Your task to perform on an android device: Who is the prime minister of Canada? Image 0: 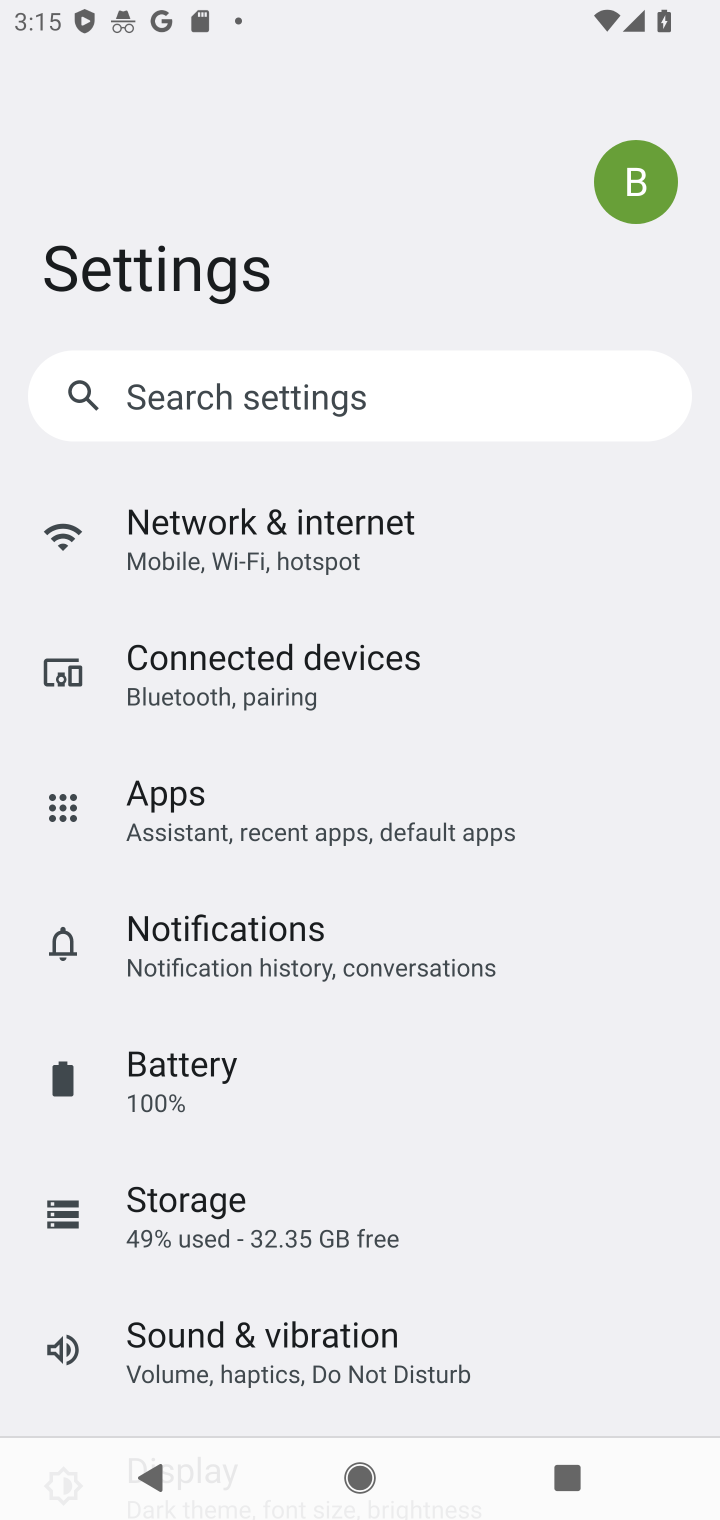
Step 0: press home button
Your task to perform on an android device: Who is the prime minister of Canada? Image 1: 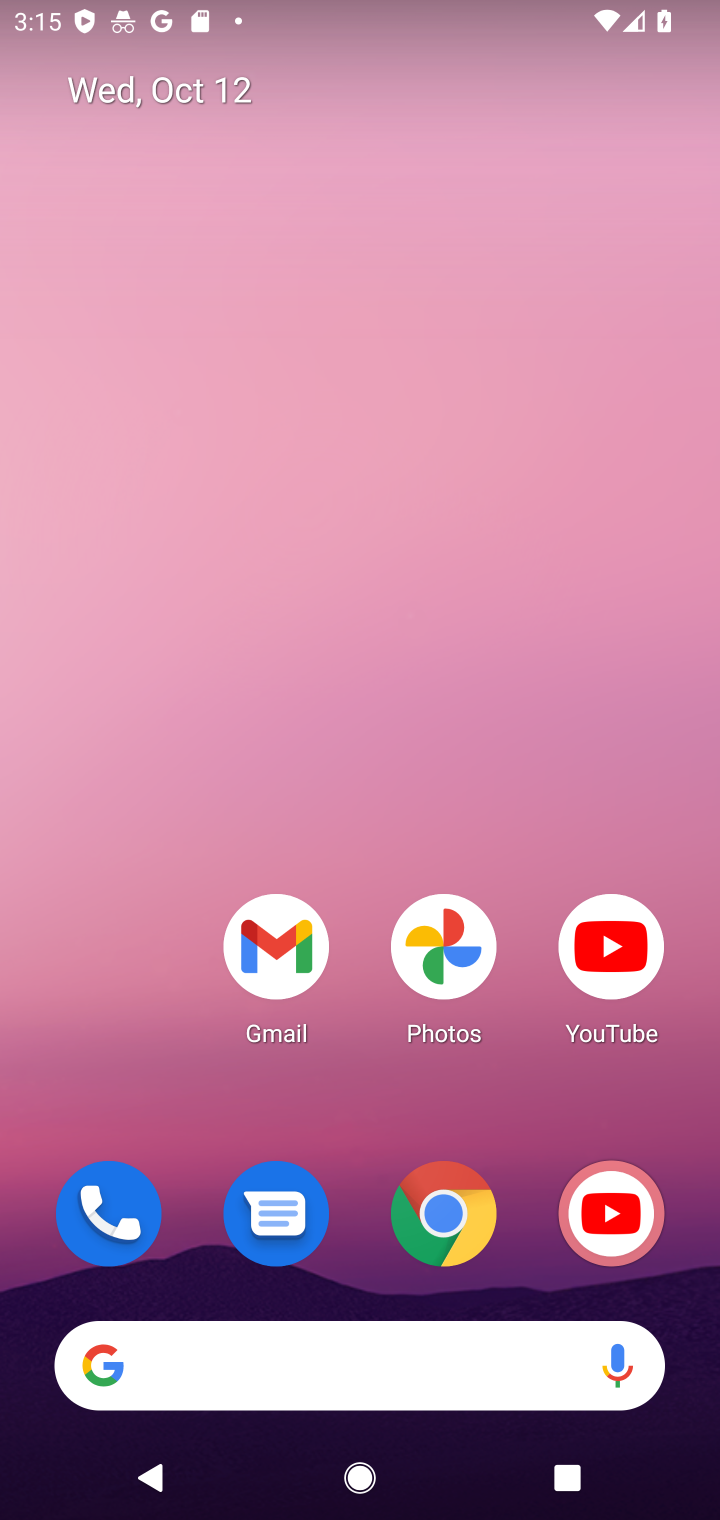
Step 1: click (310, 1380)
Your task to perform on an android device: Who is the prime minister of Canada? Image 2: 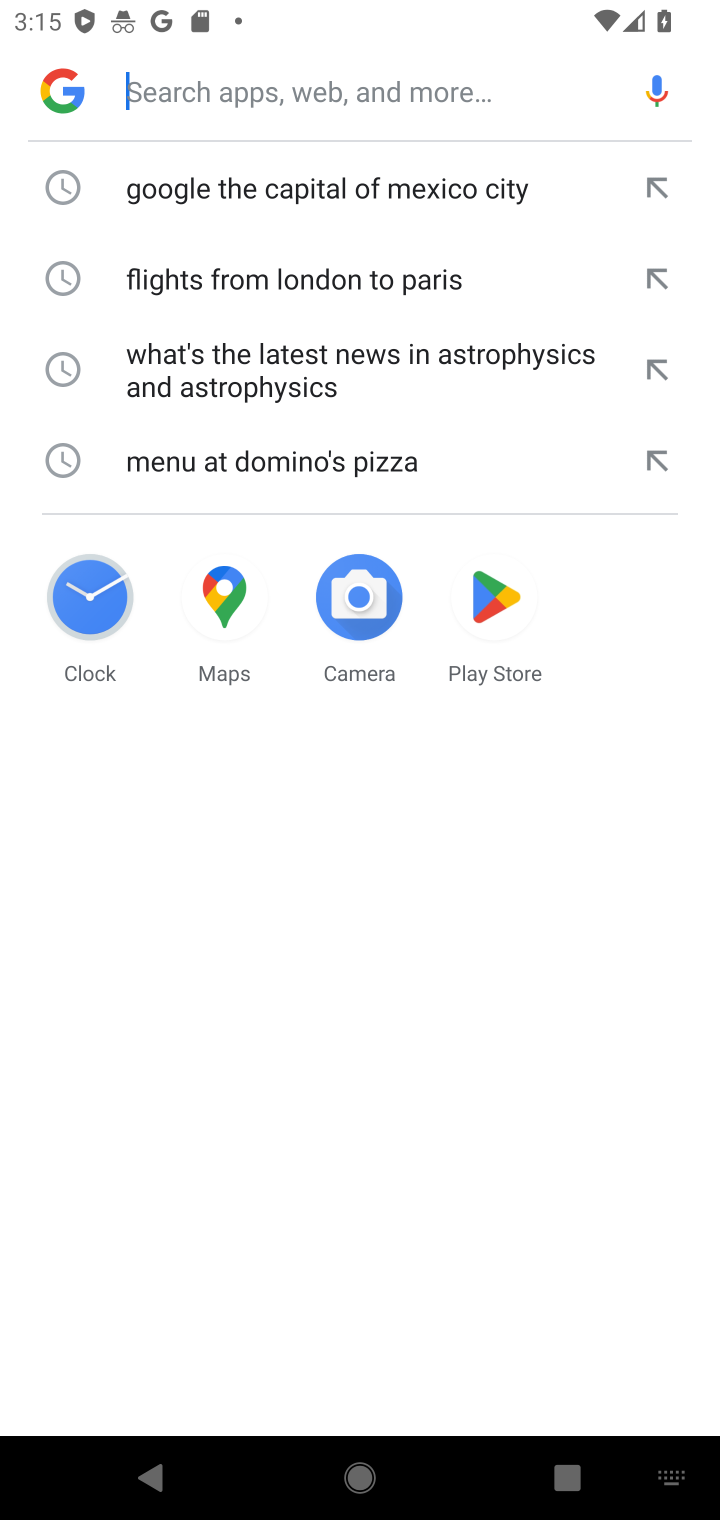
Step 2: click (198, 68)
Your task to perform on an android device: Who is the prime minister of Canada? Image 3: 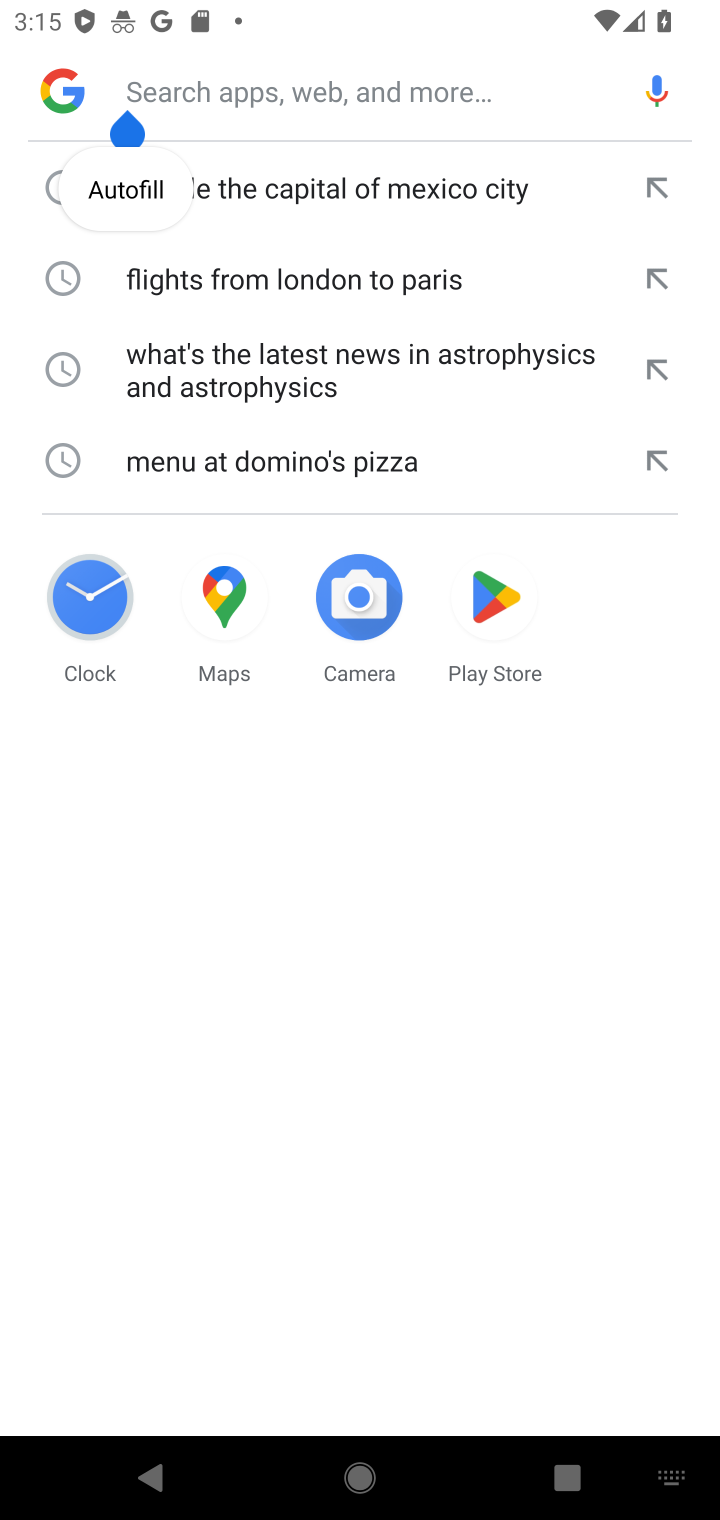
Step 3: click (560, 1043)
Your task to perform on an android device: Who is the prime minister of Canada? Image 4: 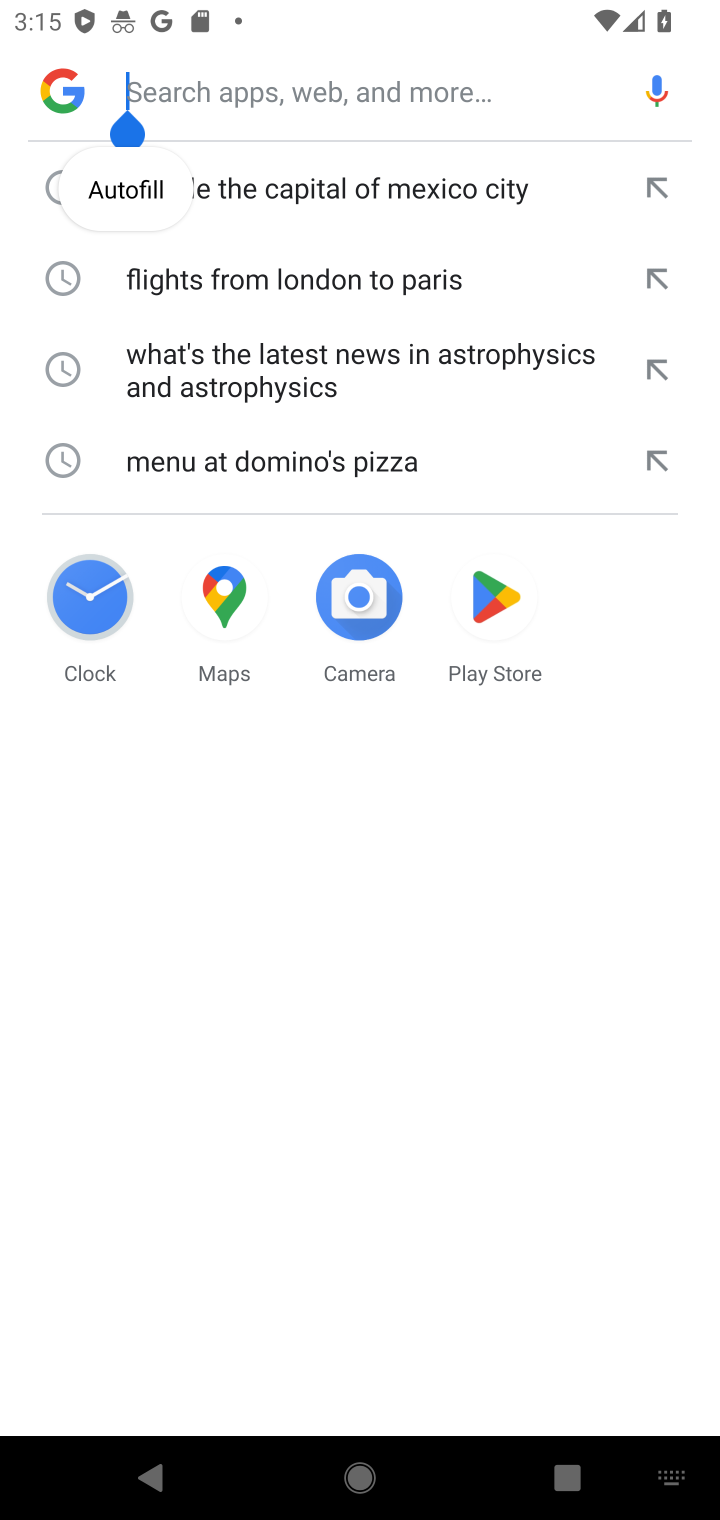
Step 4: type "Who is the prime minister of Canada?"
Your task to perform on an android device: Who is the prime minister of Canada? Image 5: 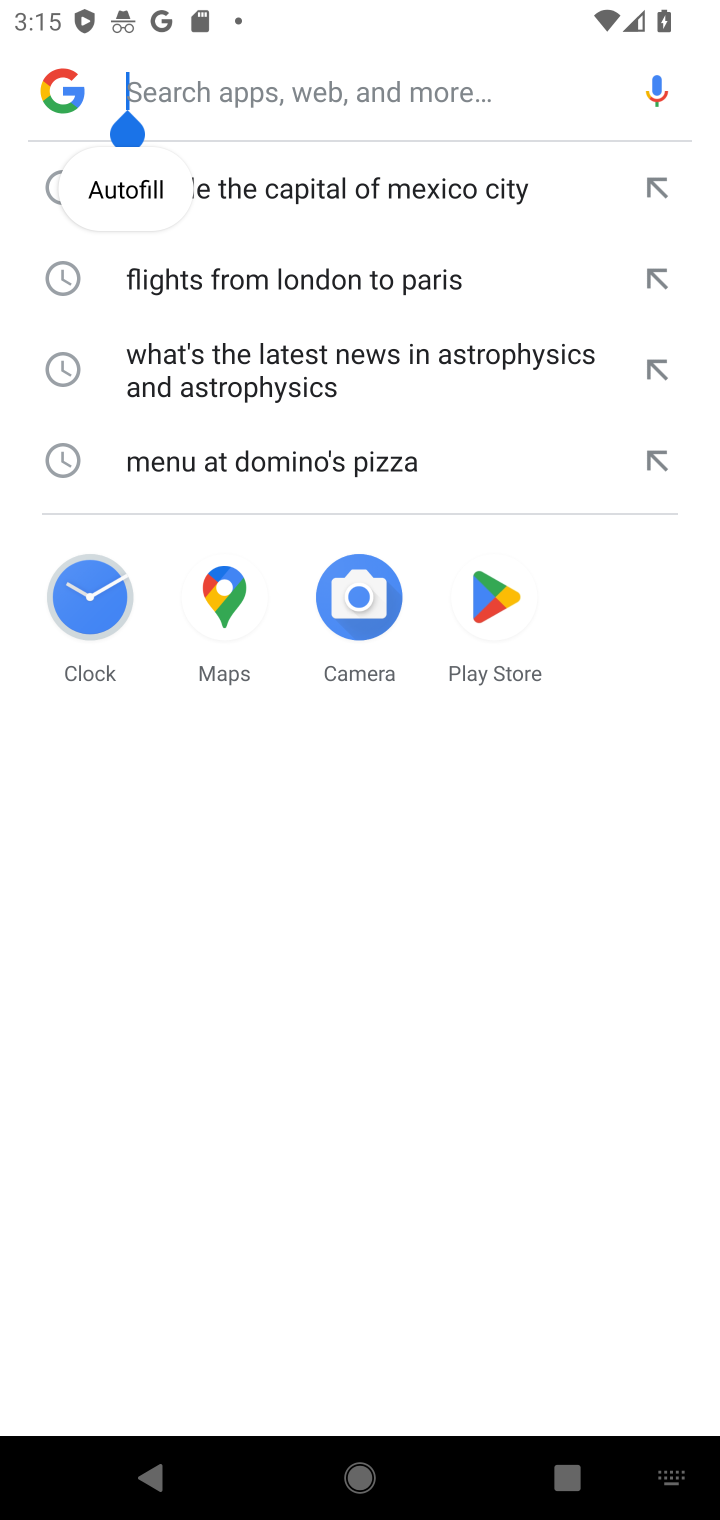
Step 5: click (560, 1043)
Your task to perform on an android device: Who is the prime minister of Canada? Image 6: 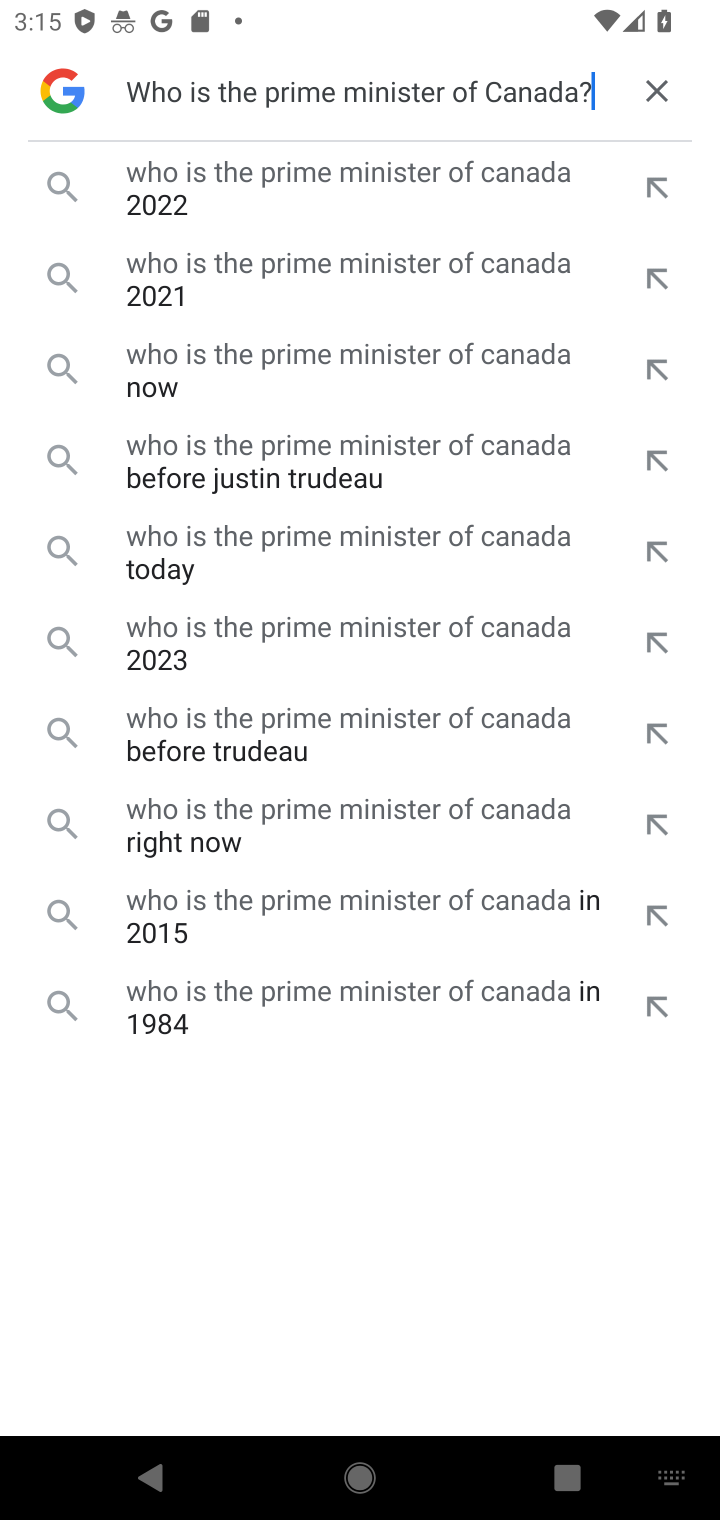
Step 6: click (308, 190)
Your task to perform on an android device: Who is the prime minister of Canada? Image 7: 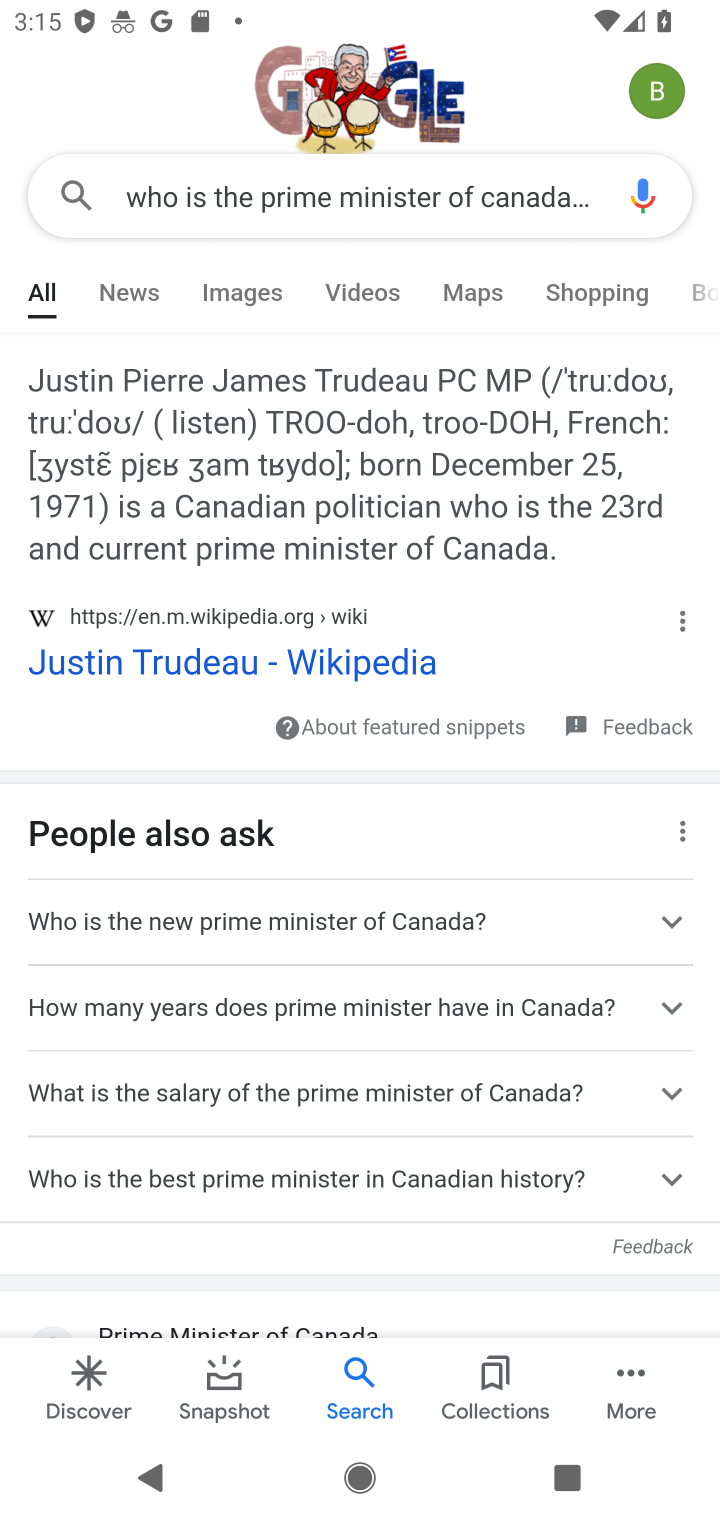
Step 7: task complete